Your task to perform on an android device: Set the phone to "Do not disturb". Image 0: 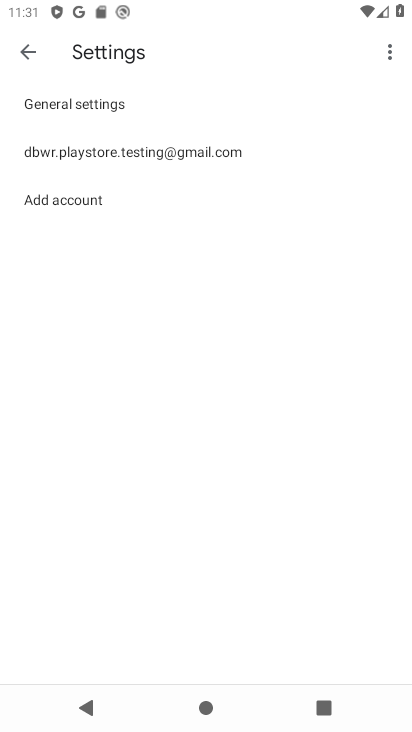
Step 0: drag from (169, 17) to (152, 474)
Your task to perform on an android device: Set the phone to "Do not disturb". Image 1: 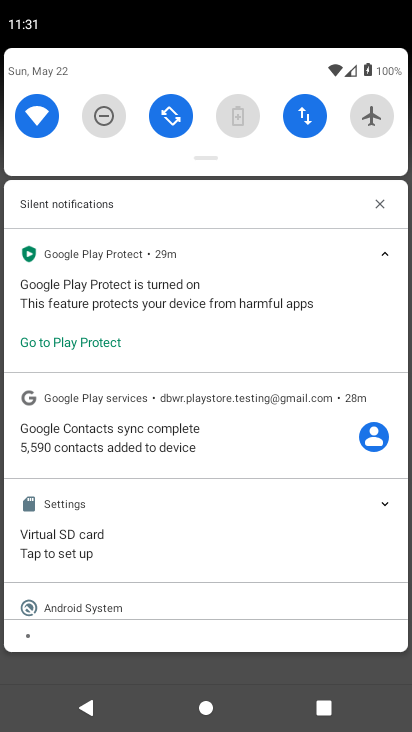
Step 1: click (106, 113)
Your task to perform on an android device: Set the phone to "Do not disturb". Image 2: 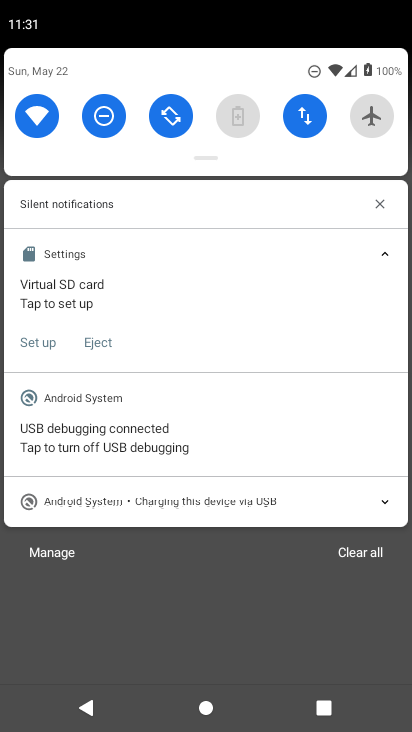
Step 2: task complete